Your task to perform on an android device: turn off notifications settings in the gmail app Image 0: 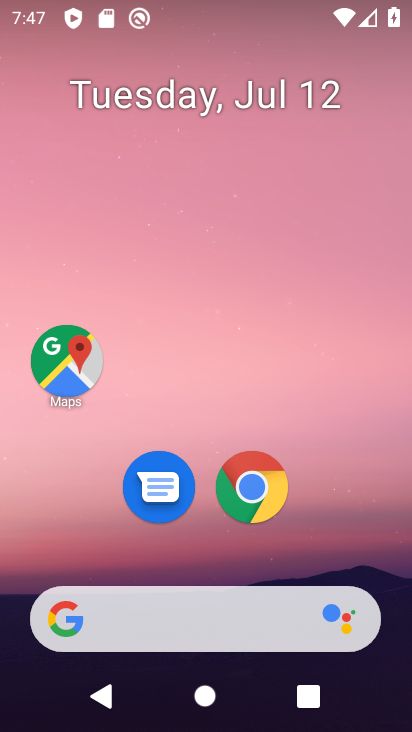
Step 0: drag from (298, 624) to (291, 212)
Your task to perform on an android device: turn off notifications settings in the gmail app Image 1: 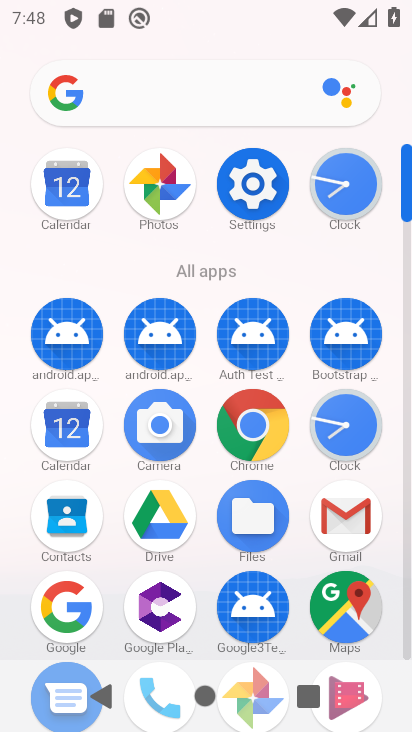
Step 1: click (349, 526)
Your task to perform on an android device: turn off notifications settings in the gmail app Image 2: 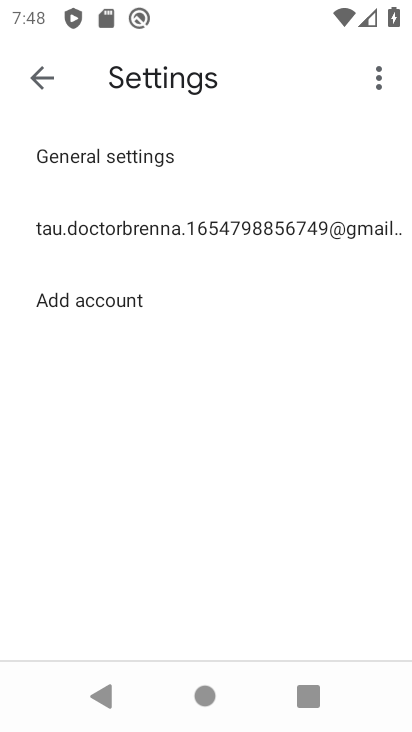
Step 2: click (213, 168)
Your task to perform on an android device: turn off notifications settings in the gmail app Image 3: 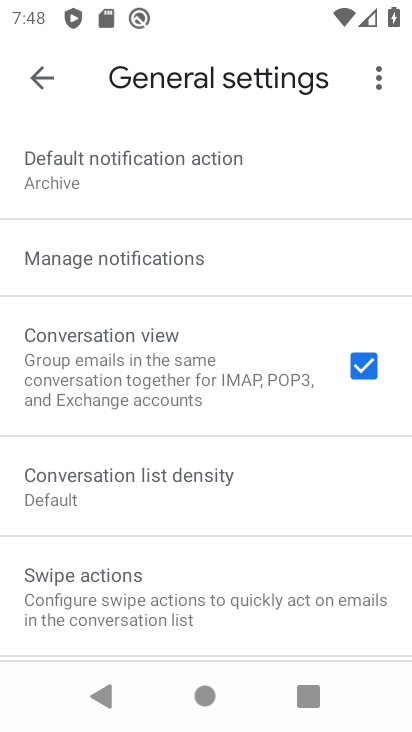
Step 3: click (244, 255)
Your task to perform on an android device: turn off notifications settings in the gmail app Image 4: 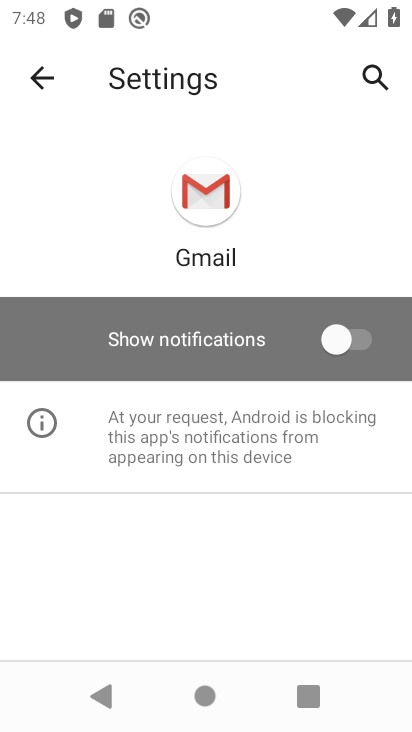
Step 4: task complete